Your task to perform on an android device: Search for seafood restaurants on Google Maps Image 0: 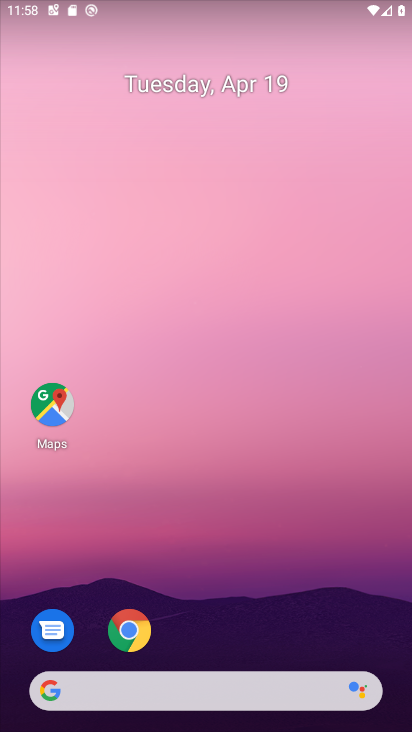
Step 0: drag from (237, 234) to (241, 91)
Your task to perform on an android device: Search for seafood restaurants on Google Maps Image 1: 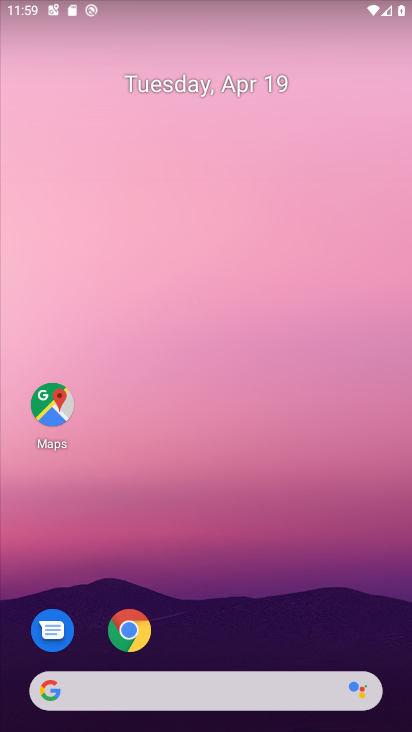
Step 1: drag from (265, 618) to (270, 232)
Your task to perform on an android device: Search for seafood restaurants on Google Maps Image 2: 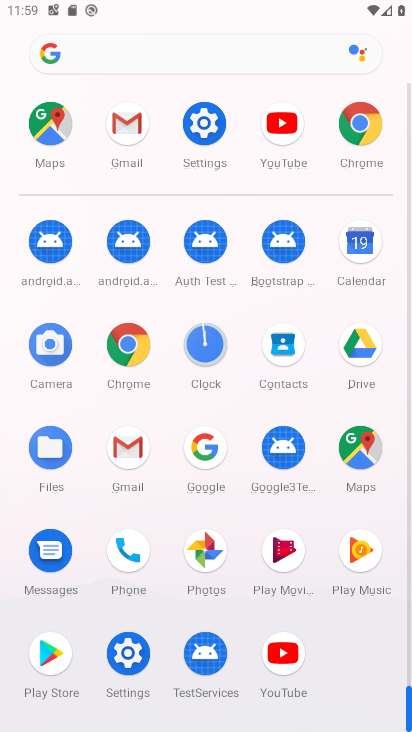
Step 2: click (365, 444)
Your task to perform on an android device: Search for seafood restaurants on Google Maps Image 3: 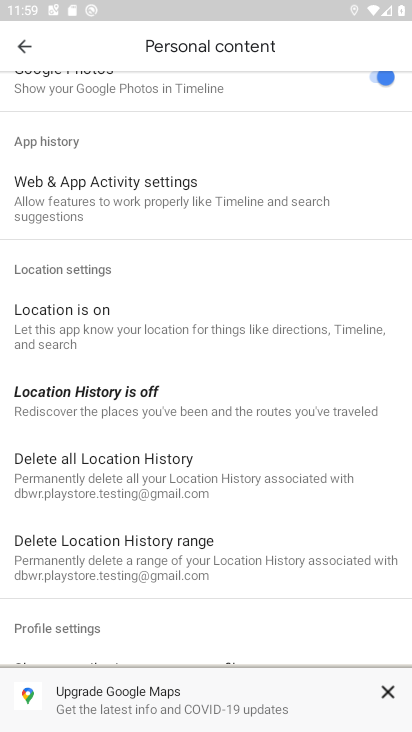
Step 3: press back button
Your task to perform on an android device: Search for seafood restaurants on Google Maps Image 4: 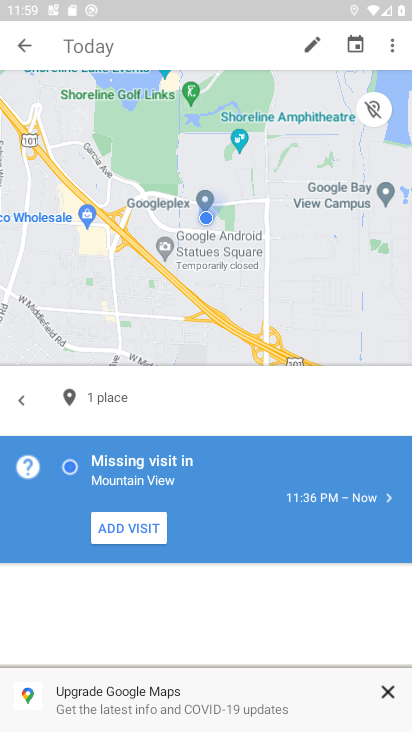
Step 4: click (18, 42)
Your task to perform on an android device: Search for seafood restaurants on Google Maps Image 5: 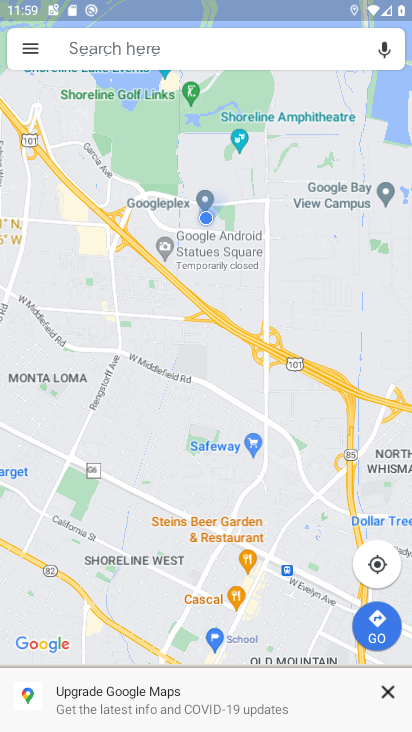
Step 5: click (170, 42)
Your task to perform on an android device: Search for seafood restaurants on Google Maps Image 6: 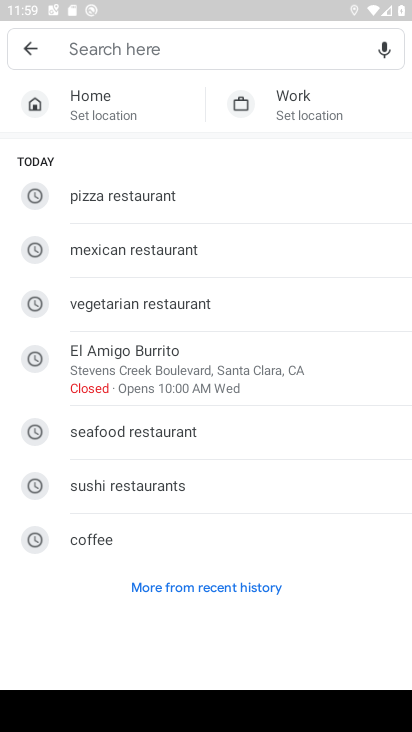
Step 6: type "seafood restaurants"
Your task to perform on an android device: Search for seafood restaurants on Google Maps Image 7: 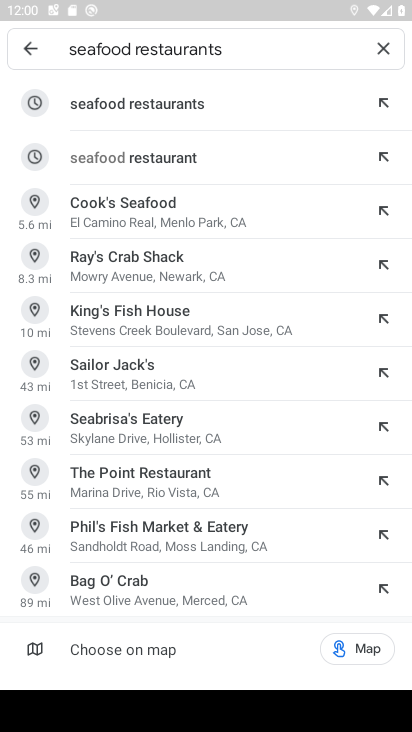
Step 7: click (144, 96)
Your task to perform on an android device: Search for seafood restaurants on Google Maps Image 8: 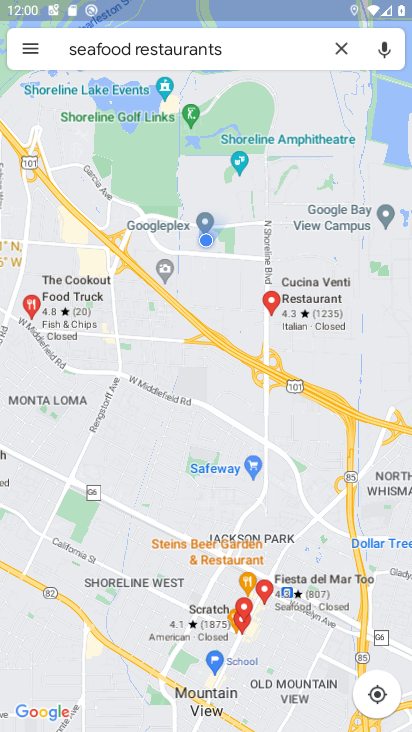
Step 8: task complete